Your task to perform on an android device: turn on sleep mode Image 0: 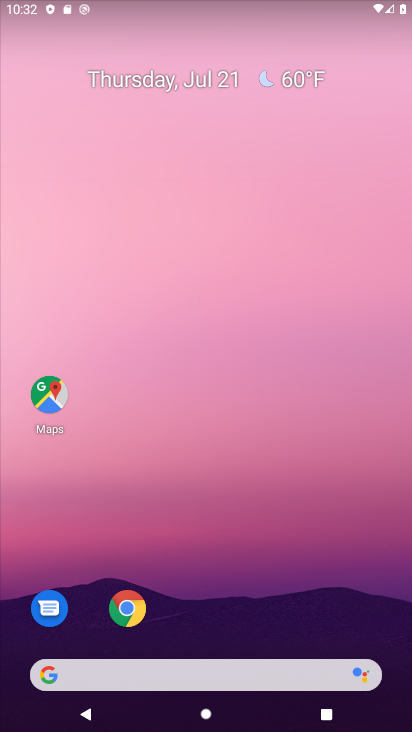
Step 0: drag from (232, 631) to (213, 13)
Your task to perform on an android device: turn on sleep mode Image 1: 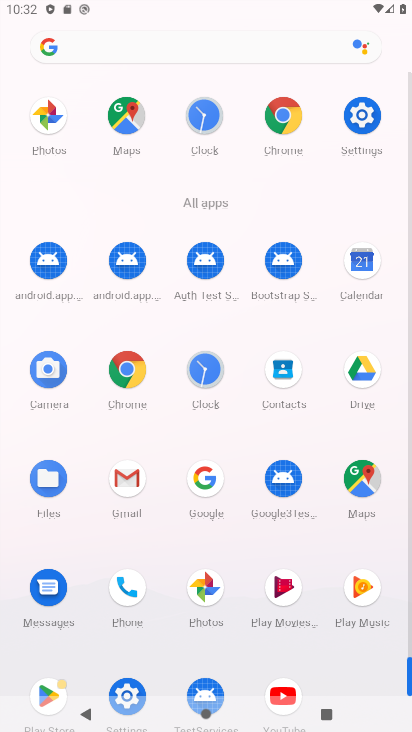
Step 1: click (357, 133)
Your task to perform on an android device: turn on sleep mode Image 2: 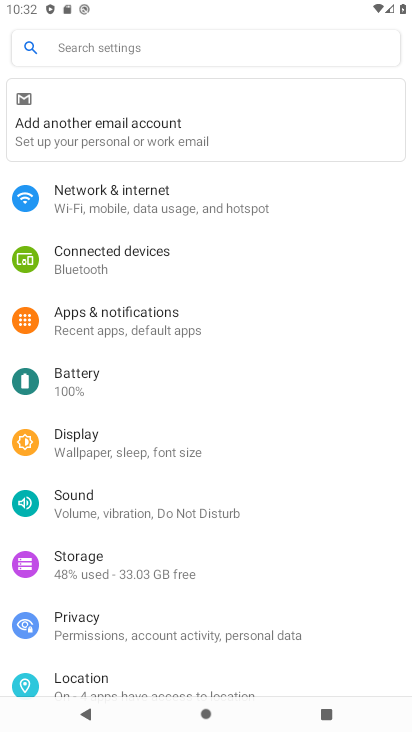
Step 2: click (180, 48)
Your task to perform on an android device: turn on sleep mode Image 3: 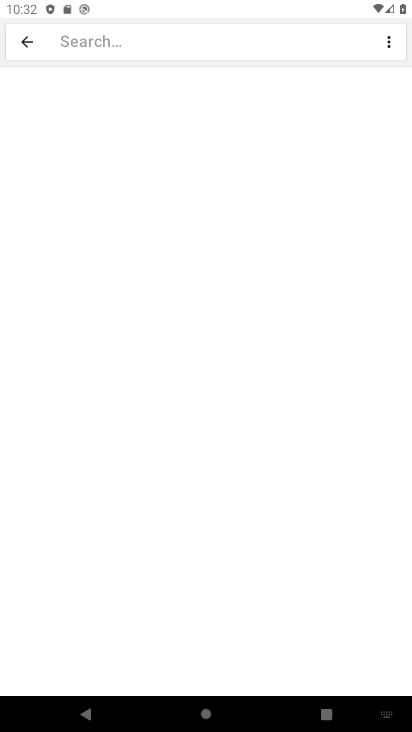
Step 3: type "sleep mode"
Your task to perform on an android device: turn on sleep mode Image 4: 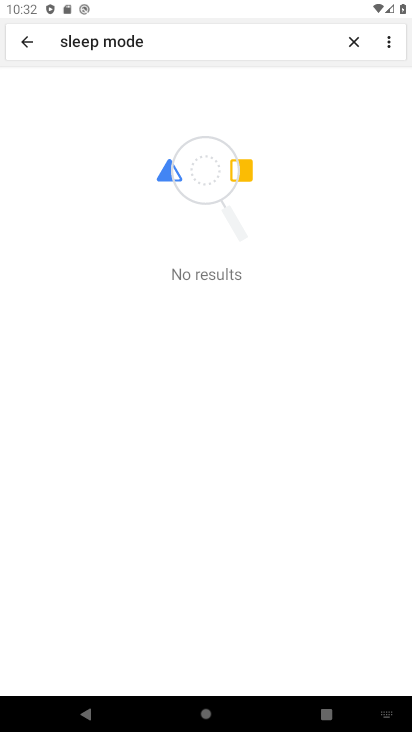
Step 4: click (191, 388)
Your task to perform on an android device: turn on sleep mode Image 5: 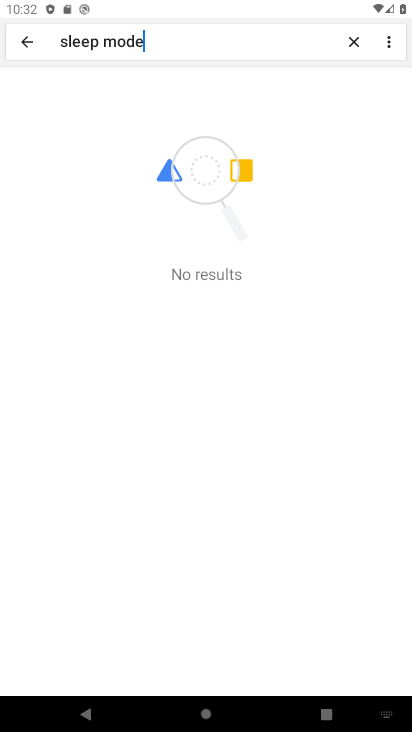
Step 5: task complete